Your task to perform on an android device: Go to settings Image 0: 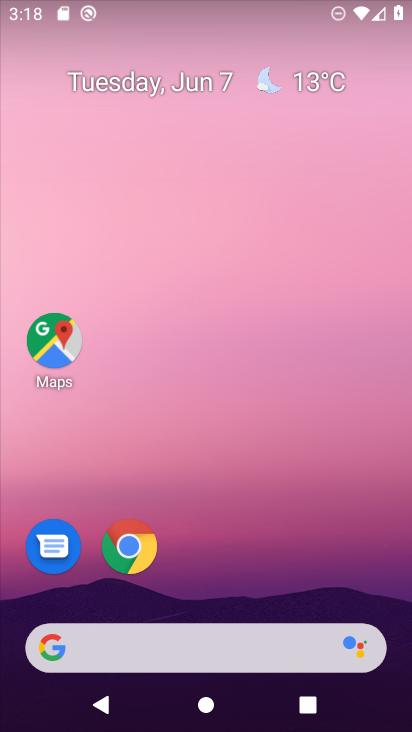
Step 0: drag from (65, 560) to (287, 188)
Your task to perform on an android device: Go to settings Image 1: 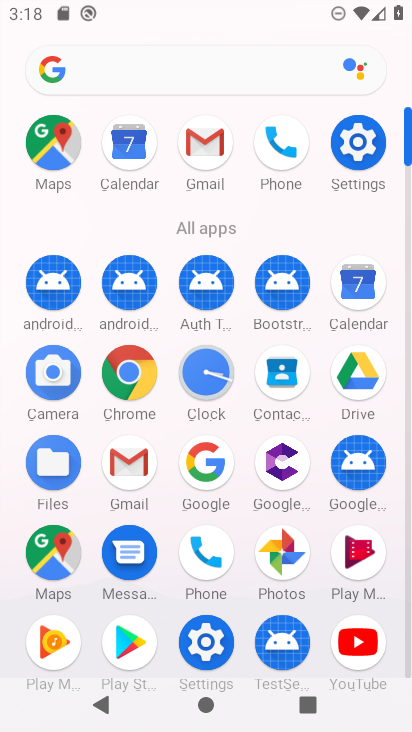
Step 1: click (346, 144)
Your task to perform on an android device: Go to settings Image 2: 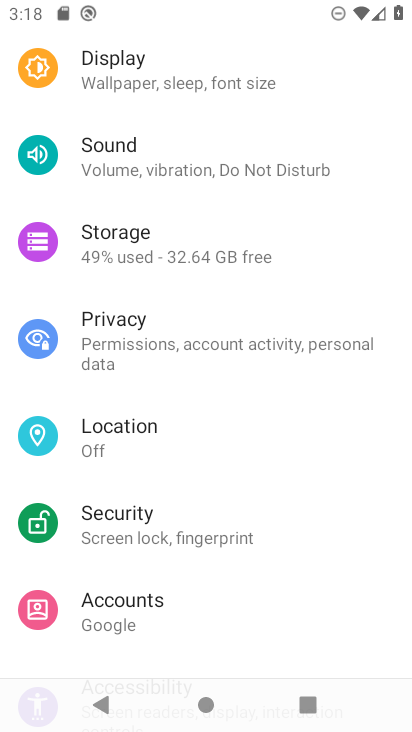
Step 2: task complete